Your task to perform on an android device: toggle airplane mode Image 0: 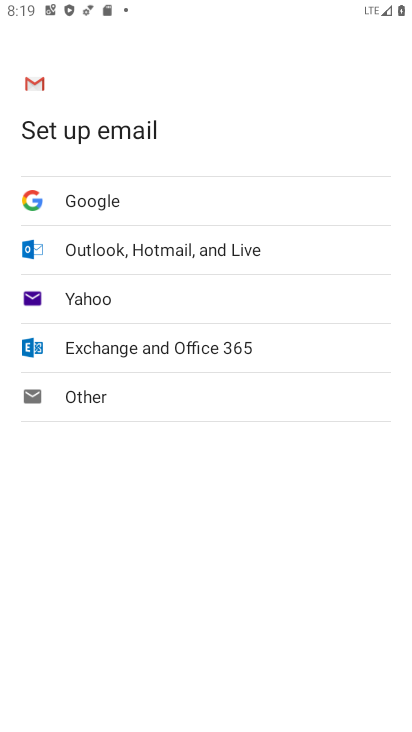
Step 0: press home button
Your task to perform on an android device: toggle airplane mode Image 1: 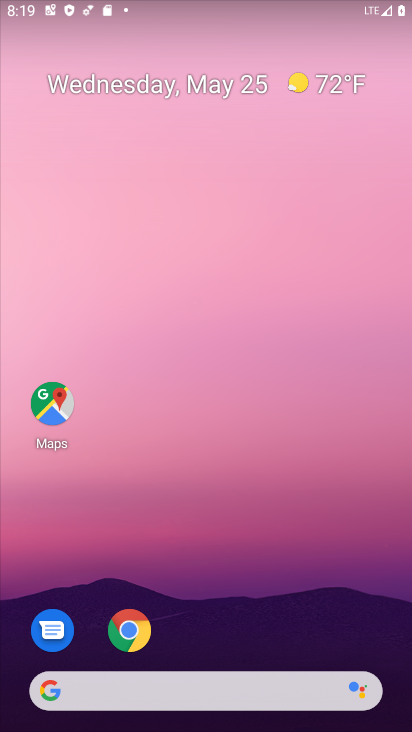
Step 1: drag from (227, 657) to (256, 192)
Your task to perform on an android device: toggle airplane mode Image 2: 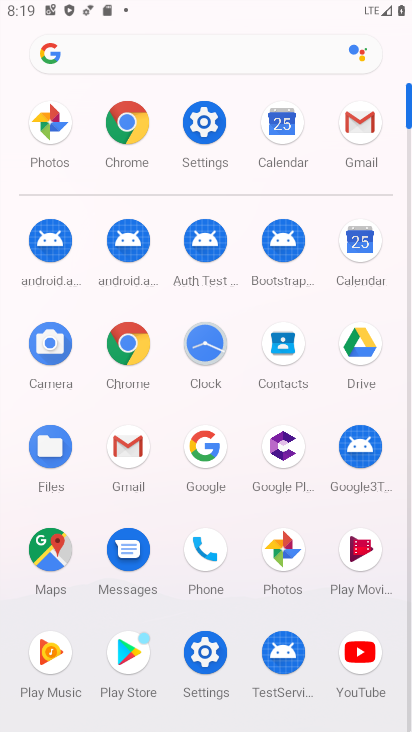
Step 2: click (201, 142)
Your task to perform on an android device: toggle airplane mode Image 3: 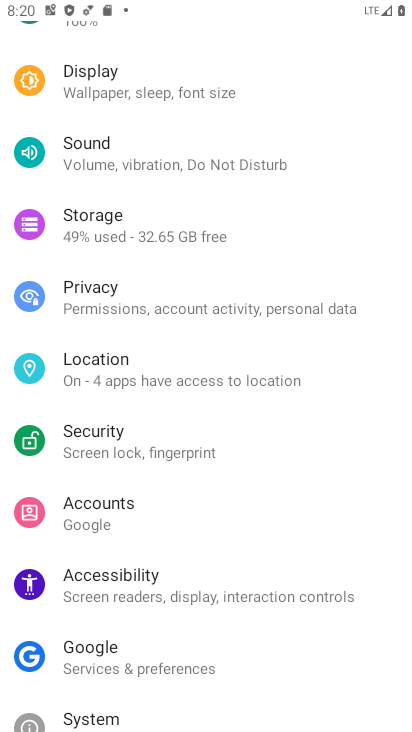
Step 3: drag from (212, 143) to (239, 415)
Your task to perform on an android device: toggle airplane mode Image 4: 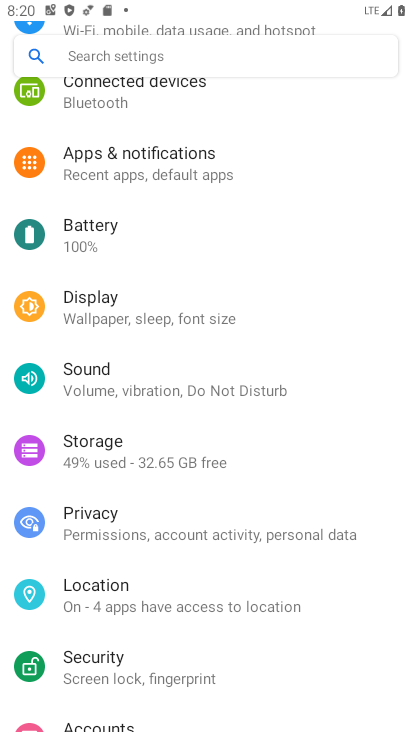
Step 4: drag from (194, 131) to (222, 367)
Your task to perform on an android device: toggle airplane mode Image 5: 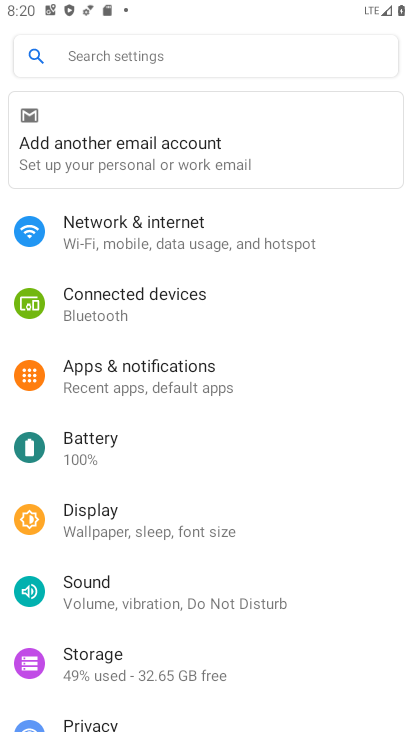
Step 5: click (226, 241)
Your task to perform on an android device: toggle airplane mode Image 6: 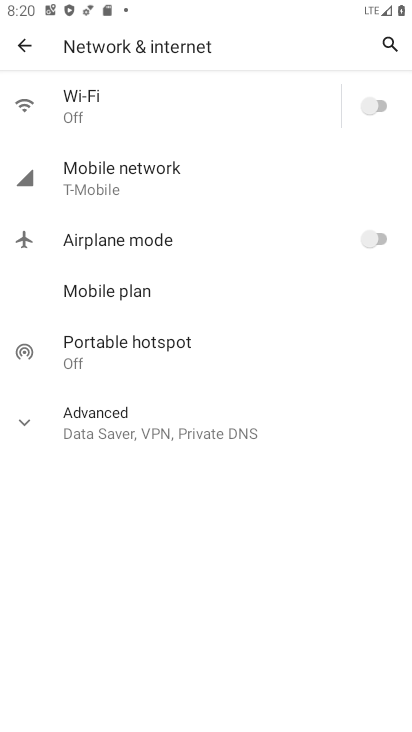
Step 6: click (386, 231)
Your task to perform on an android device: toggle airplane mode Image 7: 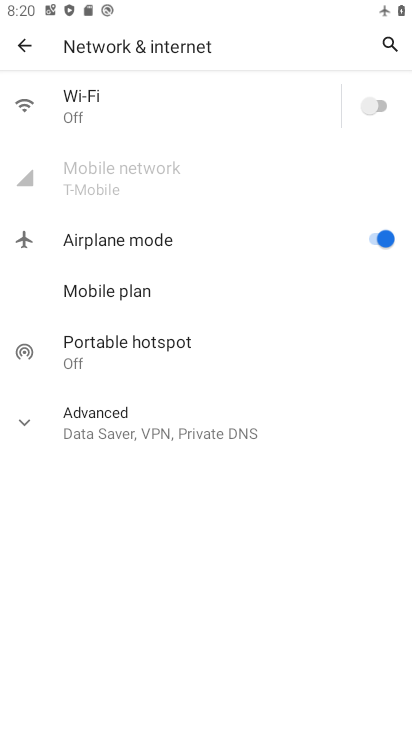
Step 7: task complete